Your task to perform on an android device: turn off location history Image 0: 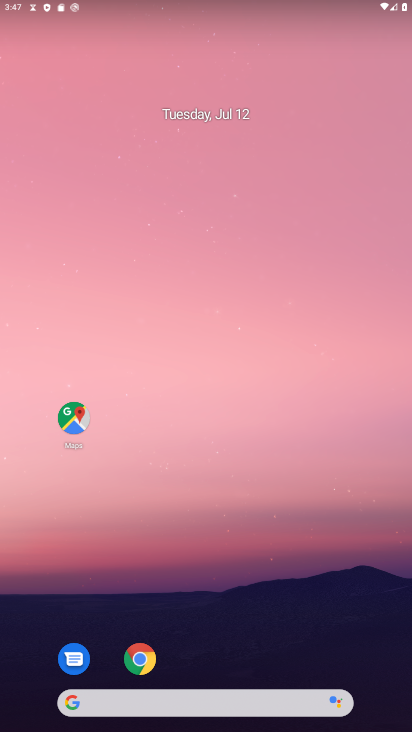
Step 0: press home button
Your task to perform on an android device: turn off location history Image 1: 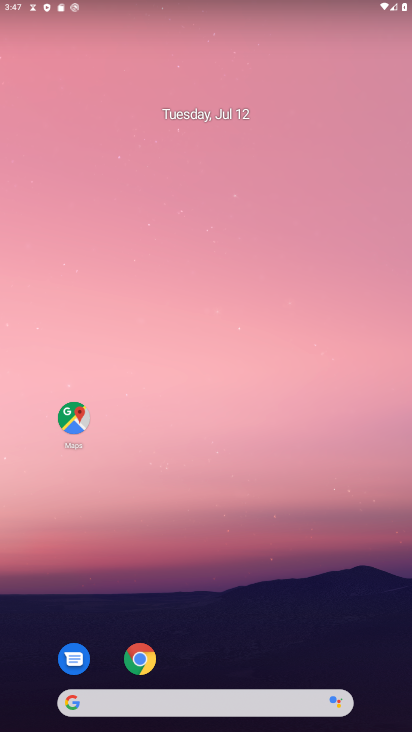
Step 1: press home button
Your task to perform on an android device: turn off location history Image 2: 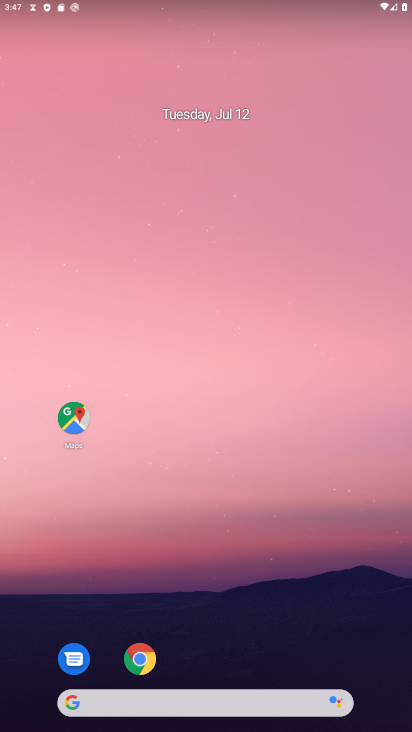
Step 2: drag from (296, 583) to (322, 68)
Your task to perform on an android device: turn off location history Image 3: 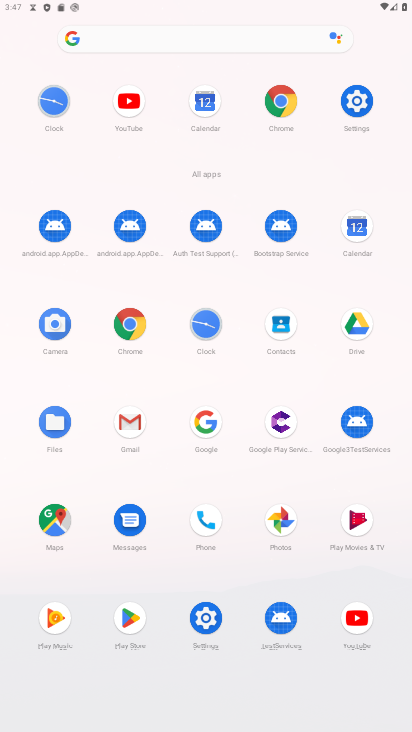
Step 3: click (355, 107)
Your task to perform on an android device: turn off location history Image 4: 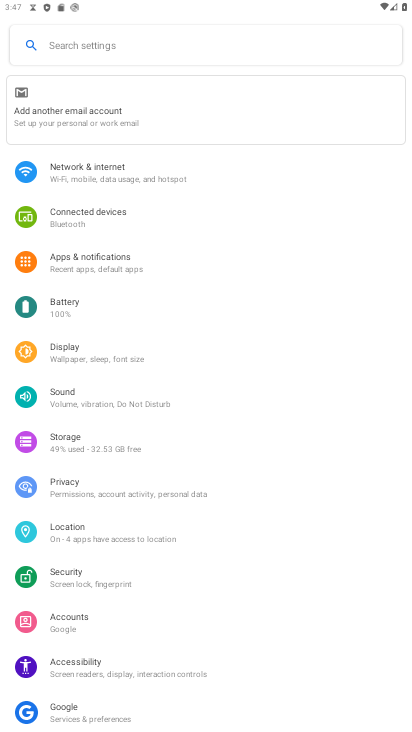
Step 4: click (78, 533)
Your task to perform on an android device: turn off location history Image 5: 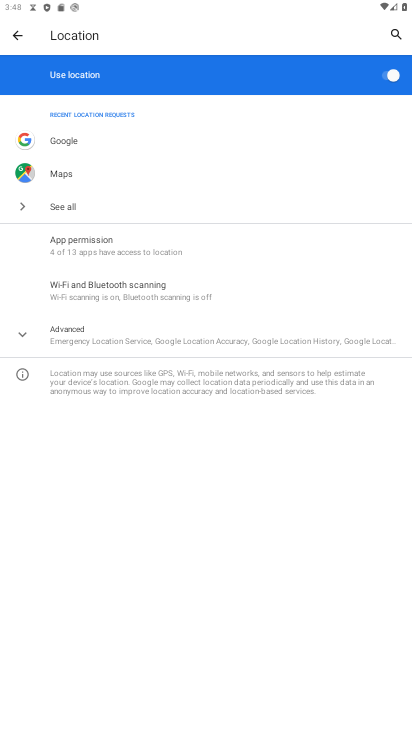
Step 5: click (26, 332)
Your task to perform on an android device: turn off location history Image 6: 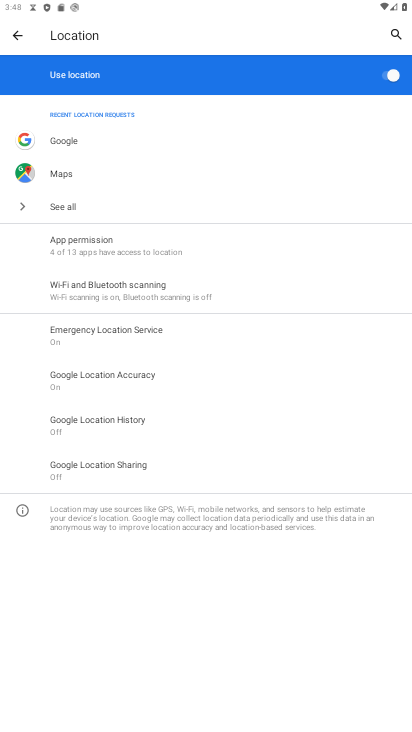
Step 6: task complete